Your task to perform on an android device: When is my next appointment? Image 0: 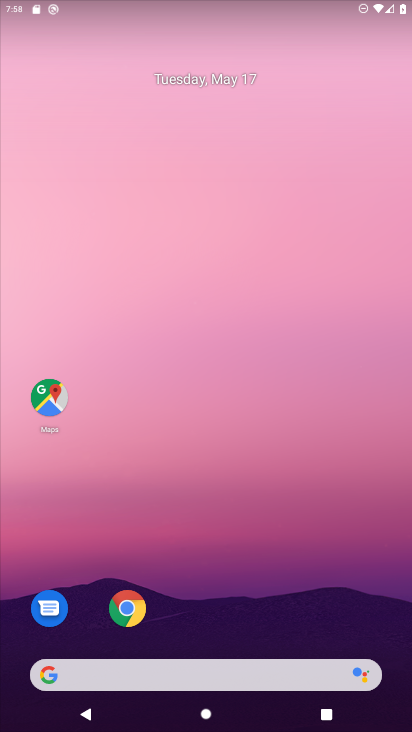
Step 0: drag from (229, 630) to (226, 137)
Your task to perform on an android device: When is my next appointment? Image 1: 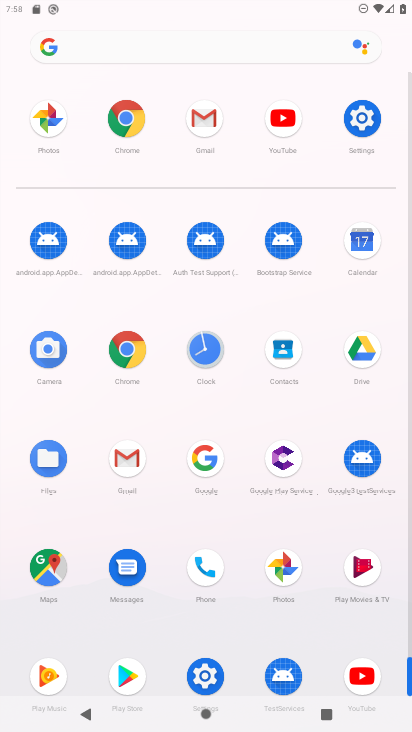
Step 1: click (358, 253)
Your task to perform on an android device: When is my next appointment? Image 2: 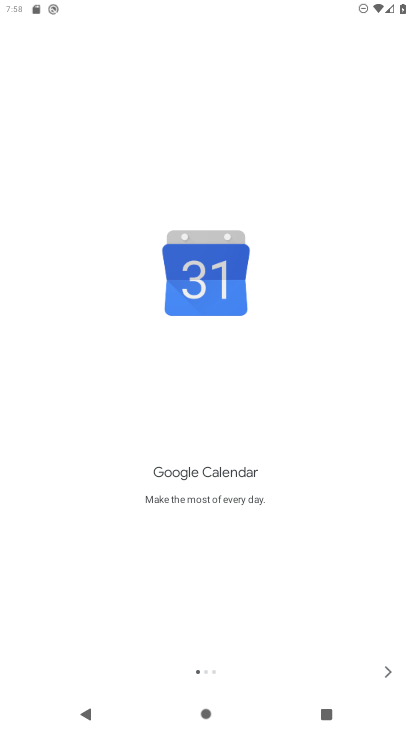
Step 2: click (381, 668)
Your task to perform on an android device: When is my next appointment? Image 3: 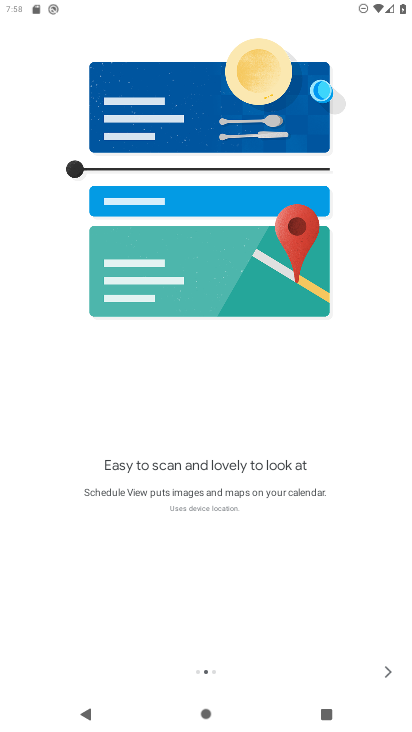
Step 3: click (381, 673)
Your task to perform on an android device: When is my next appointment? Image 4: 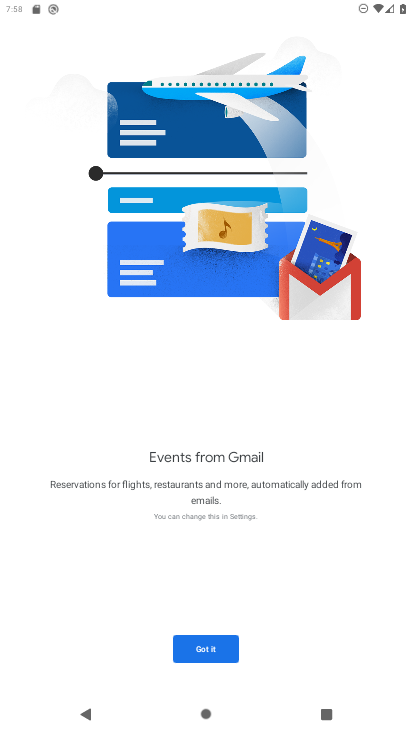
Step 4: click (204, 653)
Your task to perform on an android device: When is my next appointment? Image 5: 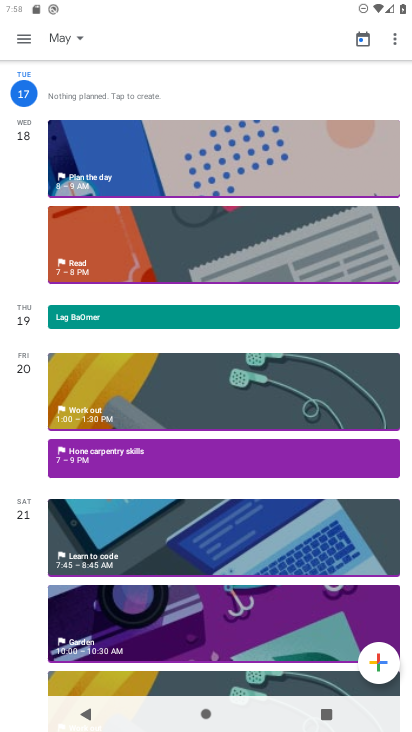
Step 5: task complete